Your task to perform on an android device: Go to Yahoo.com Image 0: 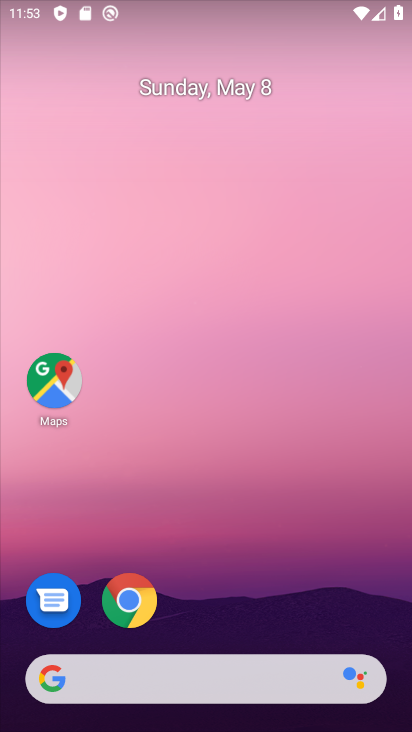
Step 0: click (135, 594)
Your task to perform on an android device: Go to Yahoo.com Image 1: 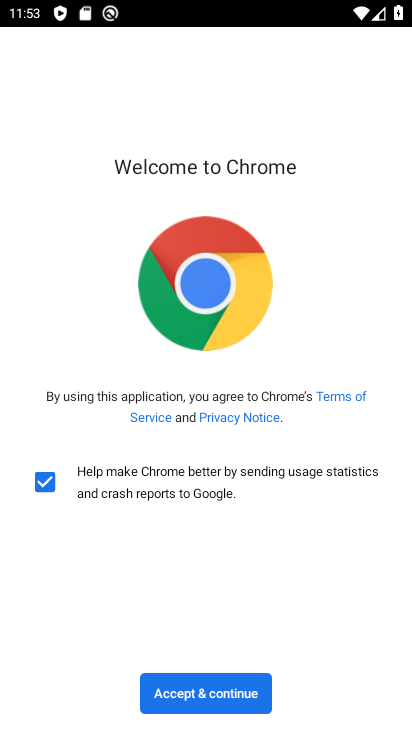
Step 1: click (204, 693)
Your task to perform on an android device: Go to Yahoo.com Image 2: 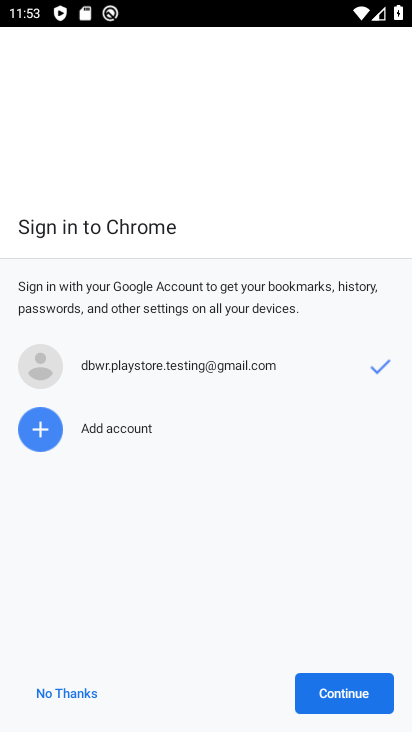
Step 2: click (354, 693)
Your task to perform on an android device: Go to Yahoo.com Image 3: 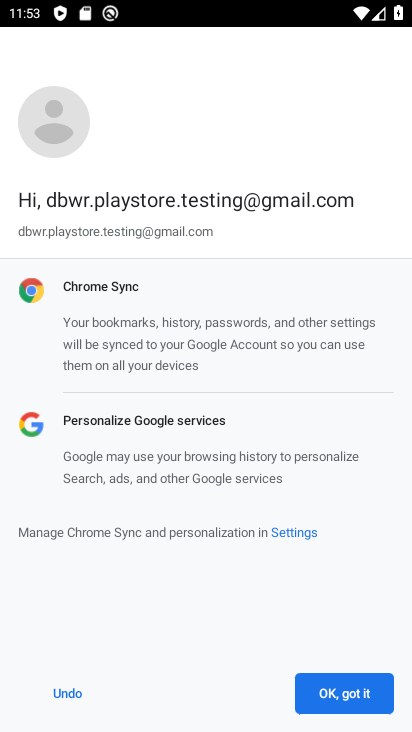
Step 3: click (354, 693)
Your task to perform on an android device: Go to Yahoo.com Image 4: 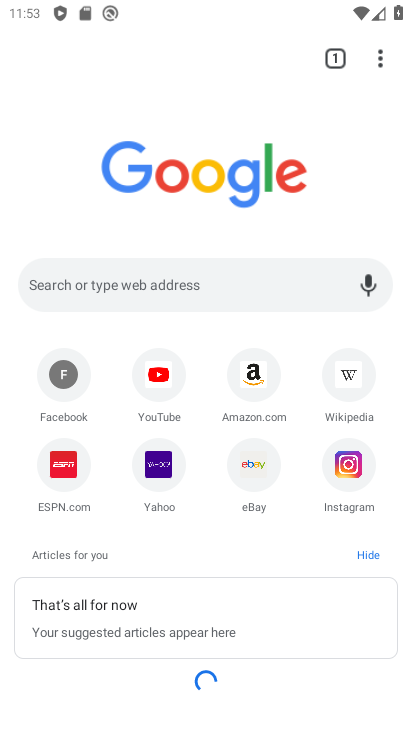
Step 4: click (149, 475)
Your task to perform on an android device: Go to Yahoo.com Image 5: 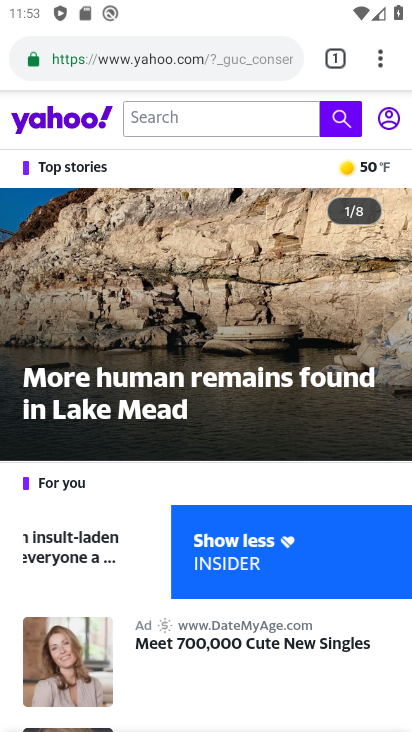
Step 5: task complete